Your task to perform on an android device: open chrome and create a bookmark for the current page Image 0: 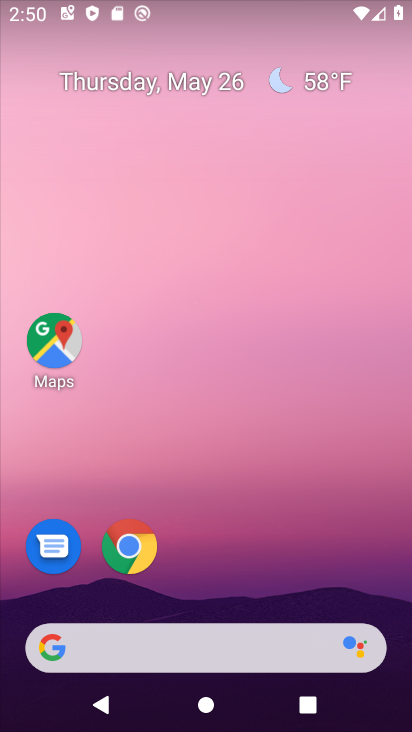
Step 0: press home button
Your task to perform on an android device: open chrome and create a bookmark for the current page Image 1: 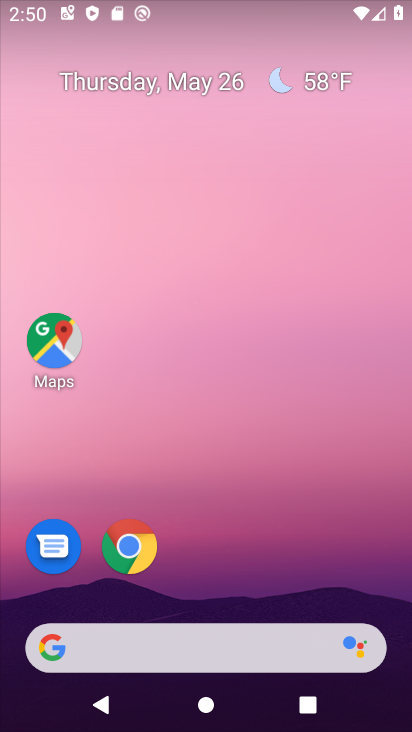
Step 1: click (127, 542)
Your task to perform on an android device: open chrome and create a bookmark for the current page Image 2: 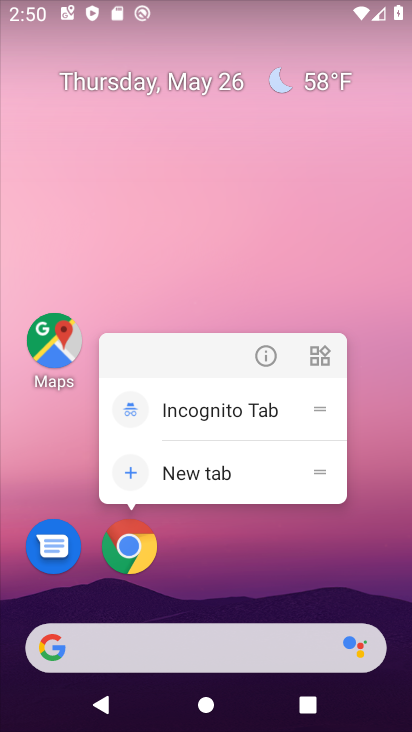
Step 2: click (127, 541)
Your task to perform on an android device: open chrome and create a bookmark for the current page Image 3: 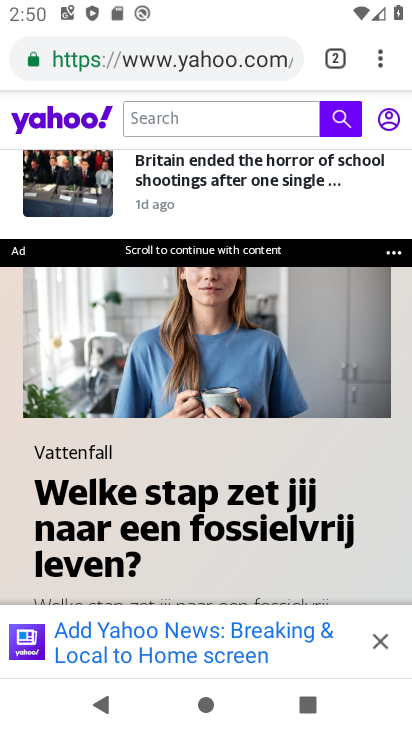
Step 3: click (387, 64)
Your task to perform on an android device: open chrome and create a bookmark for the current page Image 4: 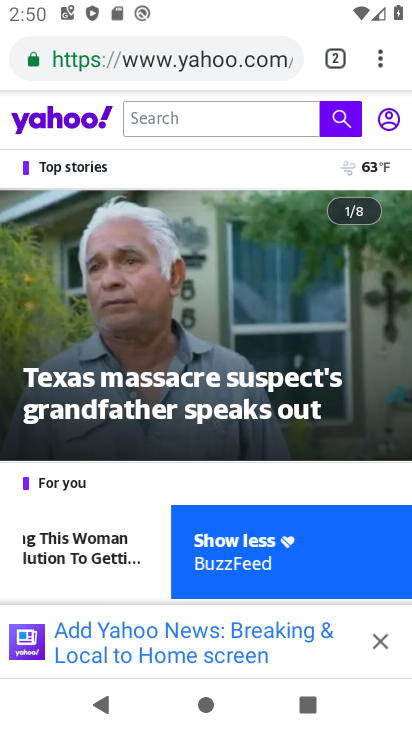
Step 4: click (385, 59)
Your task to perform on an android device: open chrome and create a bookmark for the current page Image 5: 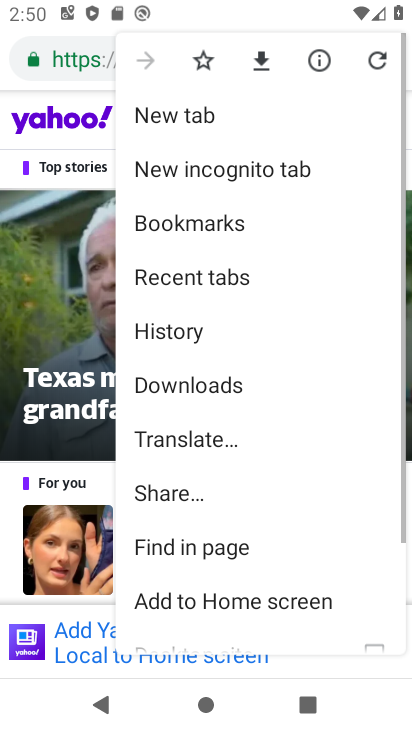
Step 5: click (374, 56)
Your task to perform on an android device: open chrome and create a bookmark for the current page Image 6: 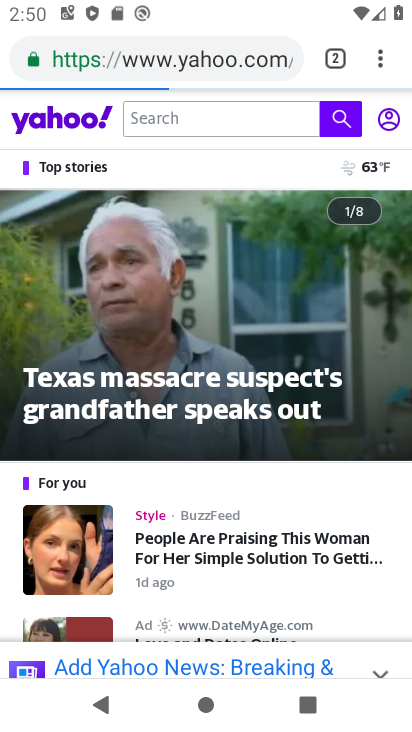
Step 6: click (374, 56)
Your task to perform on an android device: open chrome and create a bookmark for the current page Image 7: 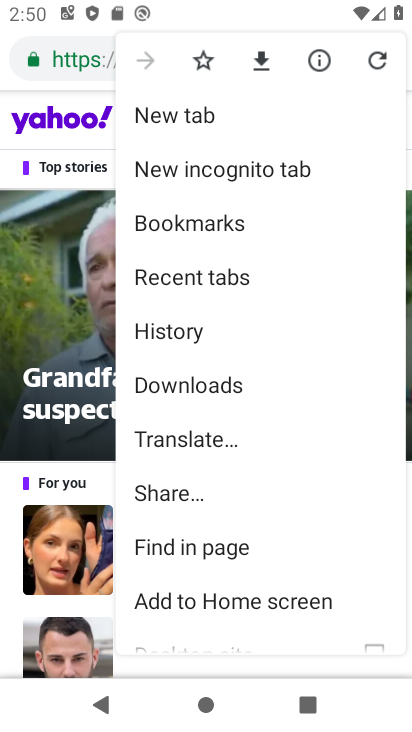
Step 7: click (202, 66)
Your task to perform on an android device: open chrome and create a bookmark for the current page Image 8: 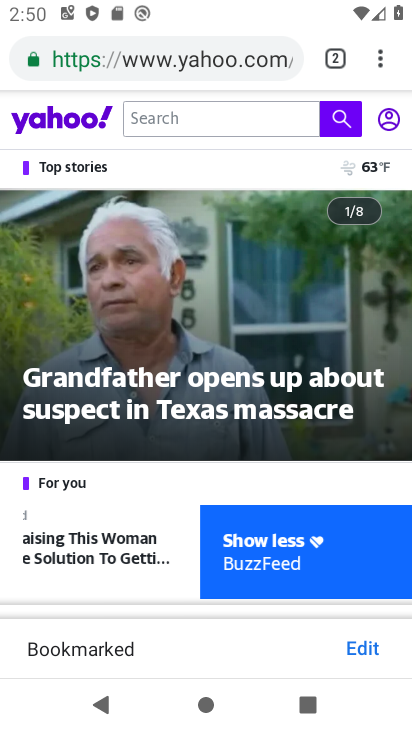
Step 8: task complete